Your task to perform on an android device: show emergency info Image 0: 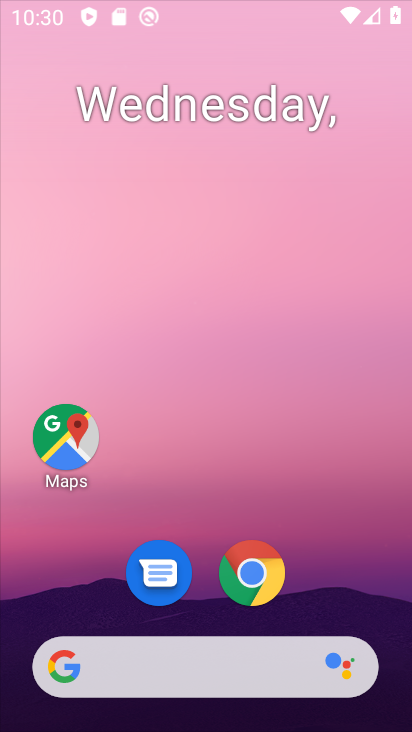
Step 0: drag from (361, 317) to (343, 137)
Your task to perform on an android device: show emergency info Image 1: 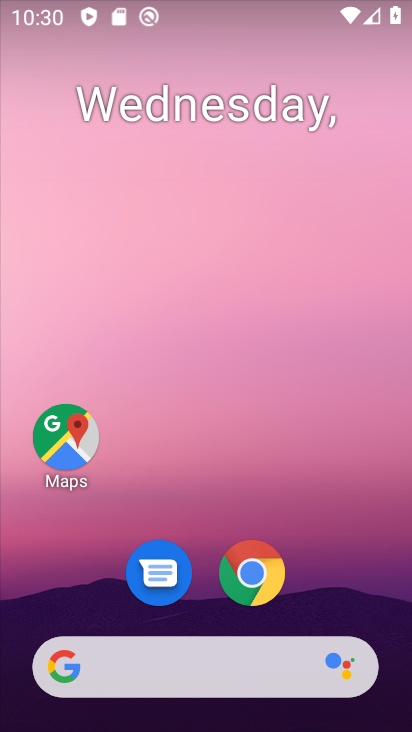
Step 1: drag from (299, 499) to (299, 154)
Your task to perform on an android device: show emergency info Image 2: 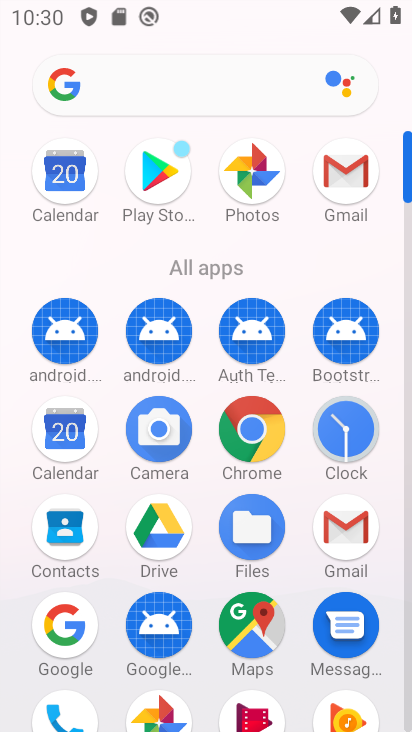
Step 2: click (353, 441)
Your task to perform on an android device: show emergency info Image 3: 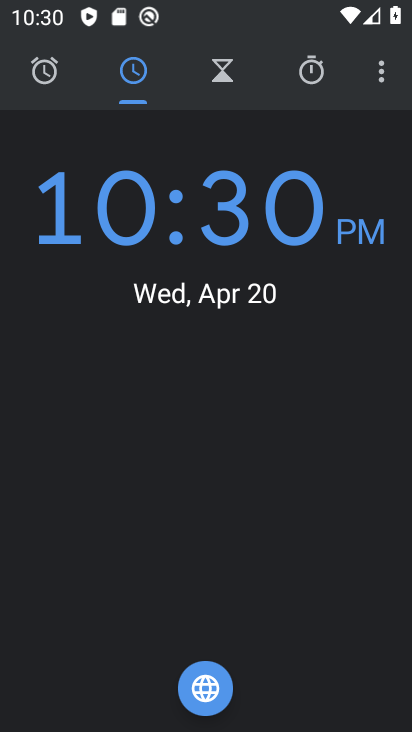
Step 3: press home button
Your task to perform on an android device: show emergency info Image 4: 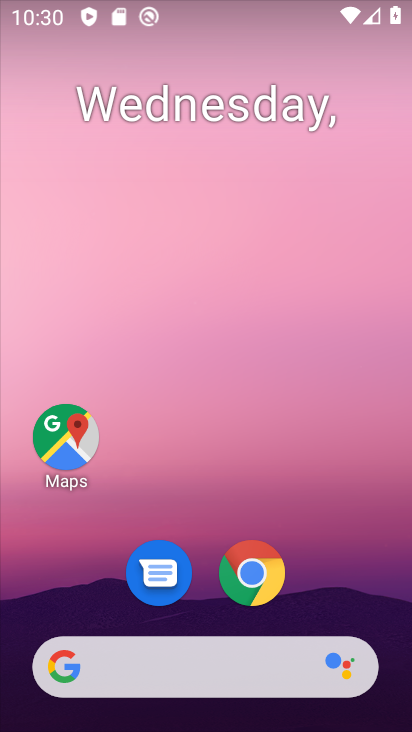
Step 4: drag from (305, 576) to (305, 92)
Your task to perform on an android device: show emergency info Image 5: 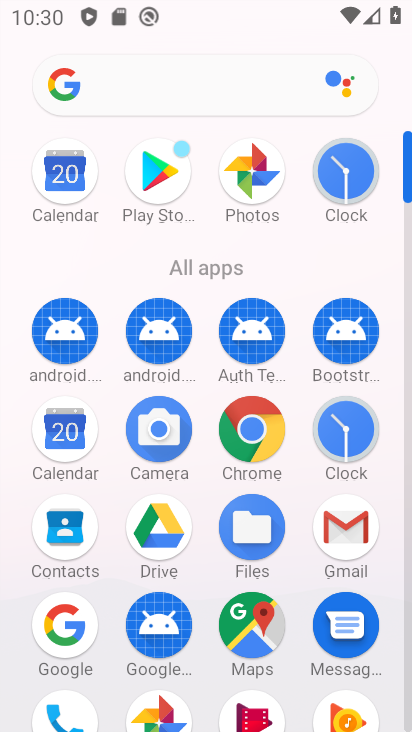
Step 5: drag from (295, 684) to (295, 295)
Your task to perform on an android device: show emergency info Image 6: 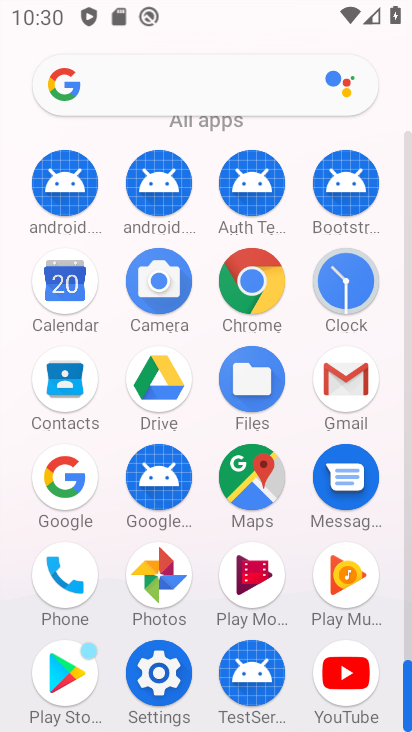
Step 6: click (165, 660)
Your task to perform on an android device: show emergency info Image 7: 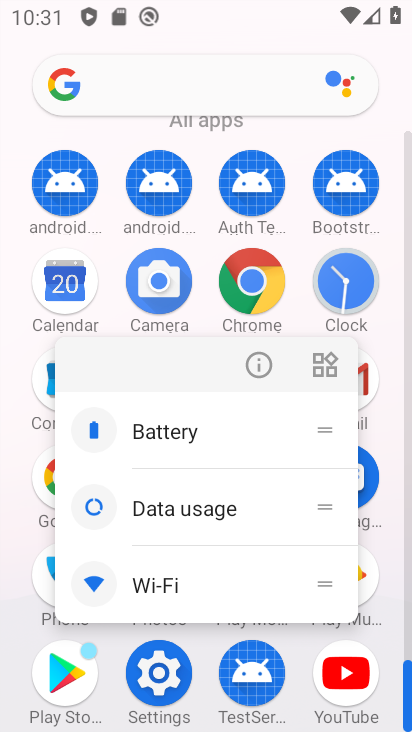
Step 7: click (157, 683)
Your task to perform on an android device: show emergency info Image 8: 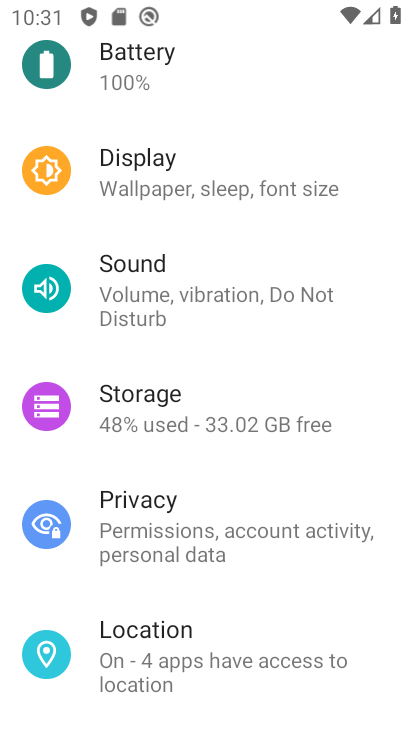
Step 8: drag from (265, 173) to (229, 707)
Your task to perform on an android device: show emergency info Image 9: 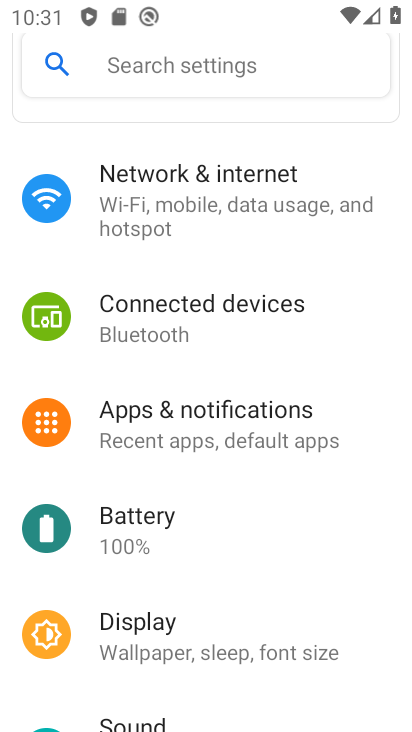
Step 9: click (178, 80)
Your task to perform on an android device: show emergency info Image 10: 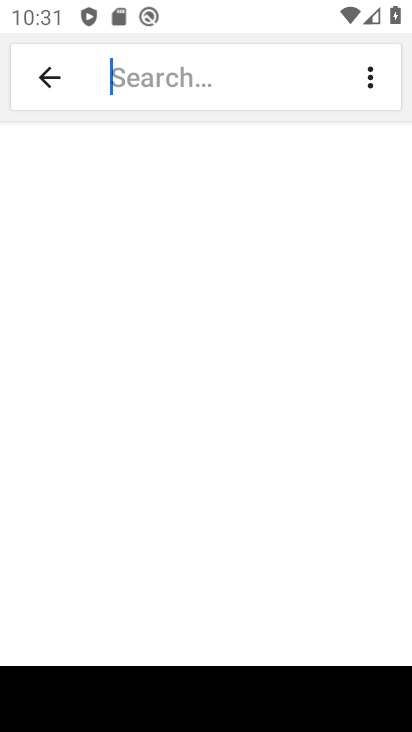
Step 10: type "emergency info"
Your task to perform on an android device: show emergency info Image 11: 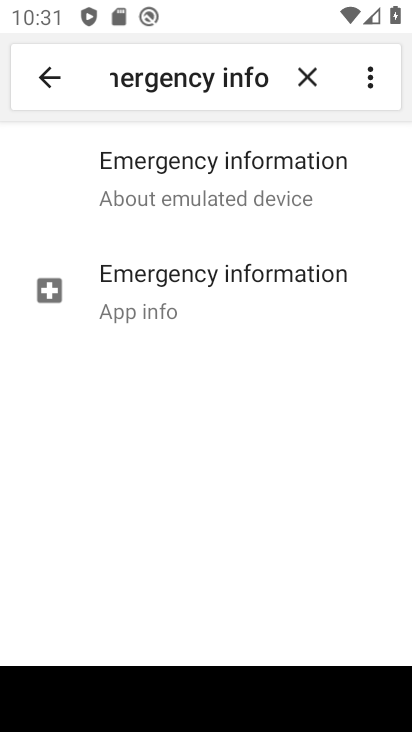
Step 11: click (180, 285)
Your task to perform on an android device: show emergency info Image 12: 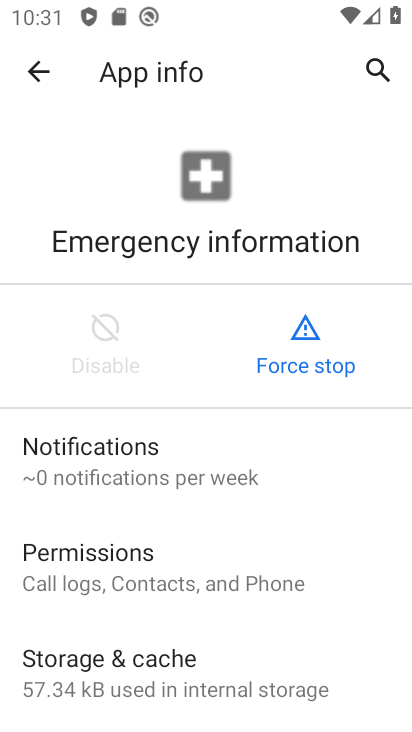
Step 12: task complete